Your task to perform on an android device: show emergency info Image 0: 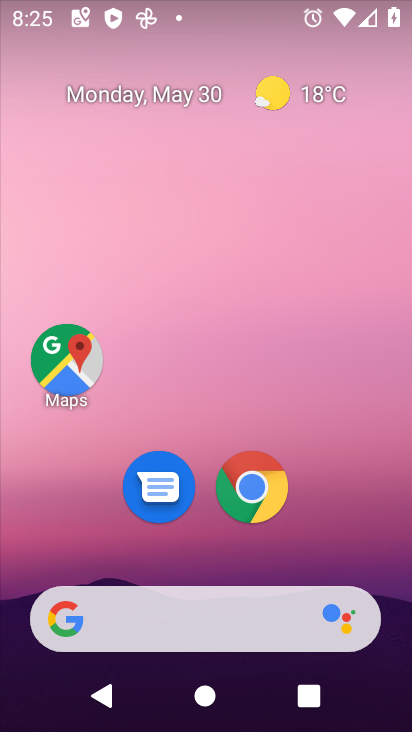
Step 0: drag from (324, 552) to (336, 203)
Your task to perform on an android device: show emergency info Image 1: 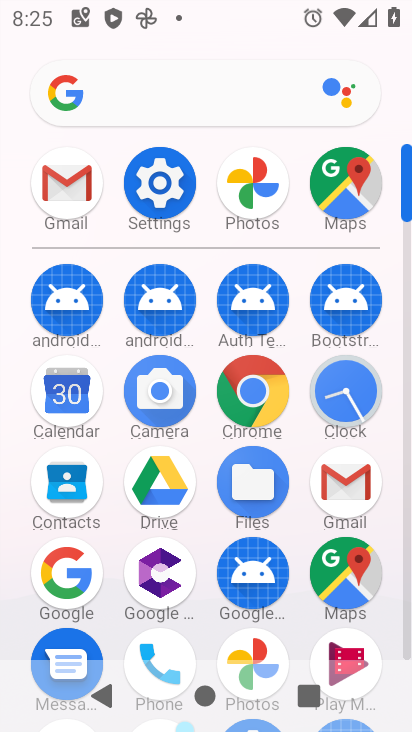
Step 1: click (165, 203)
Your task to perform on an android device: show emergency info Image 2: 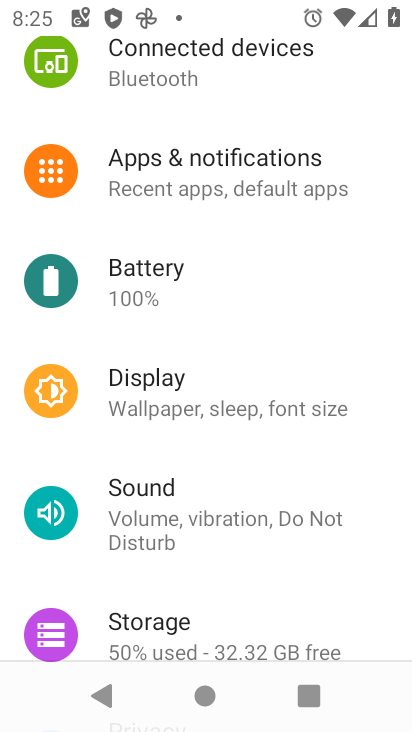
Step 2: drag from (292, 613) to (328, 74)
Your task to perform on an android device: show emergency info Image 3: 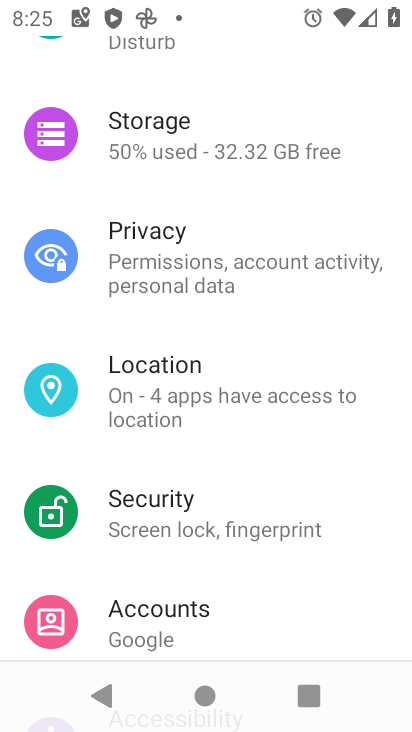
Step 3: drag from (325, 566) to (334, 68)
Your task to perform on an android device: show emergency info Image 4: 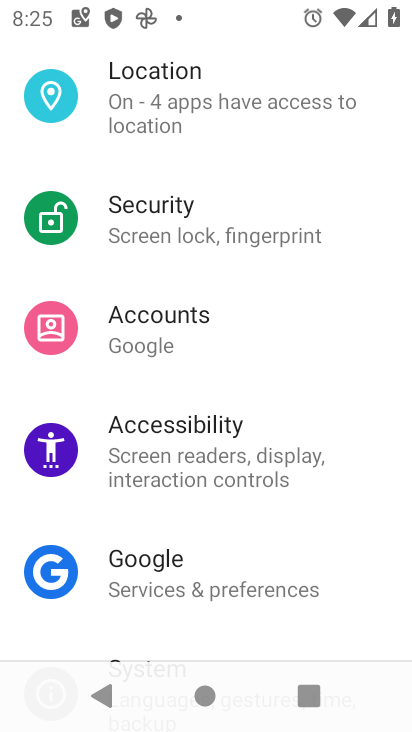
Step 4: drag from (310, 514) to (319, 15)
Your task to perform on an android device: show emergency info Image 5: 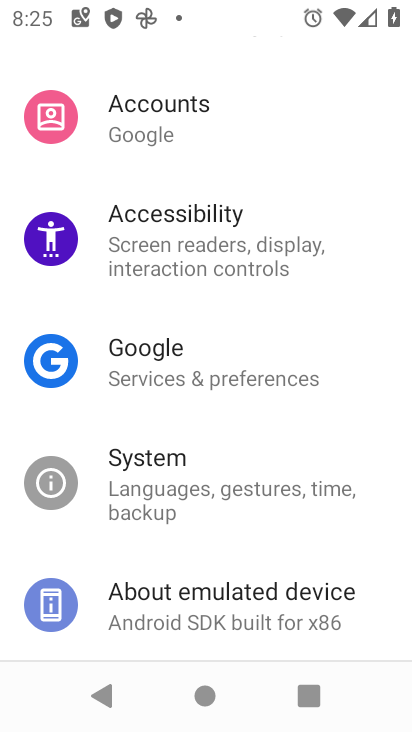
Step 5: click (171, 599)
Your task to perform on an android device: show emergency info Image 6: 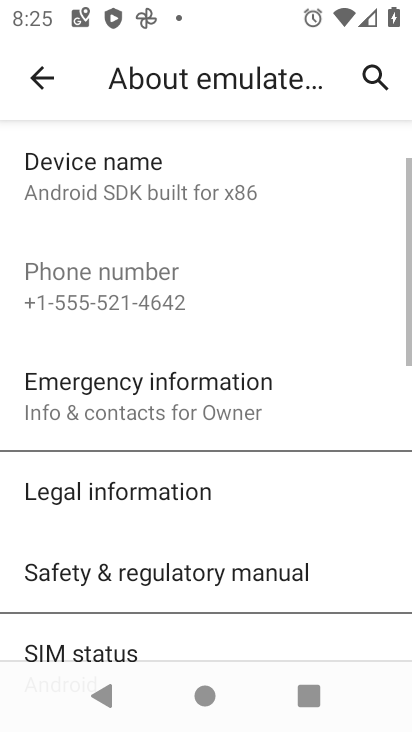
Step 6: click (149, 378)
Your task to perform on an android device: show emergency info Image 7: 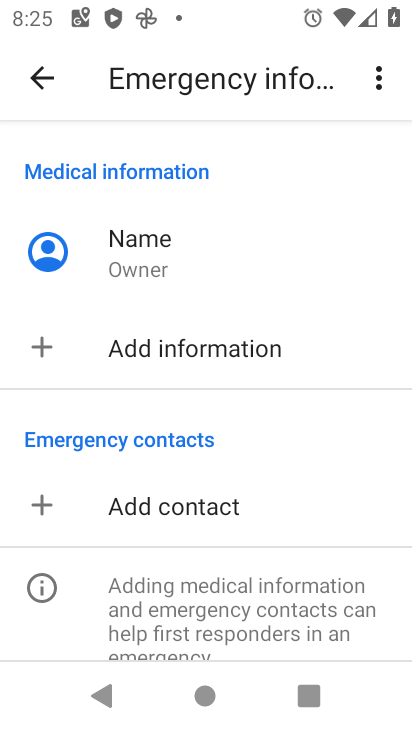
Step 7: task complete